Your task to perform on an android device: turn on priority inbox in the gmail app Image 0: 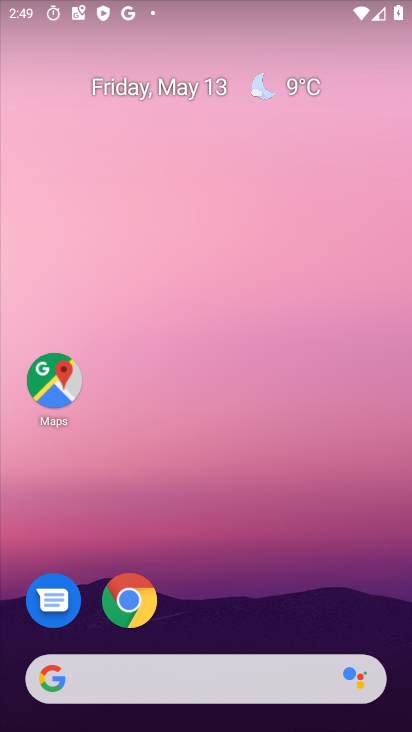
Step 0: drag from (216, 583) to (364, 39)
Your task to perform on an android device: turn on priority inbox in the gmail app Image 1: 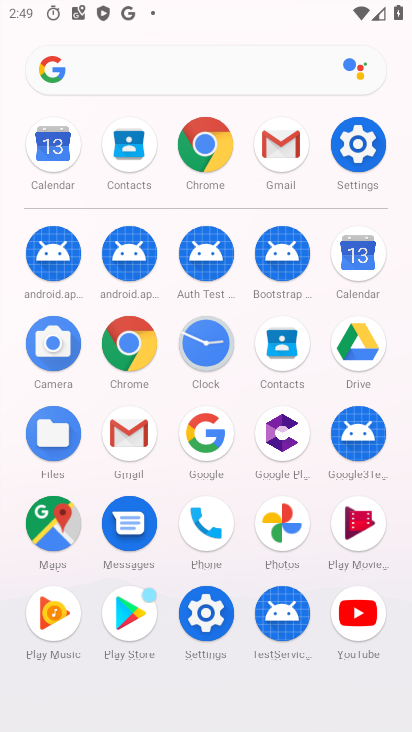
Step 1: click (127, 429)
Your task to perform on an android device: turn on priority inbox in the gmail app Image 2: 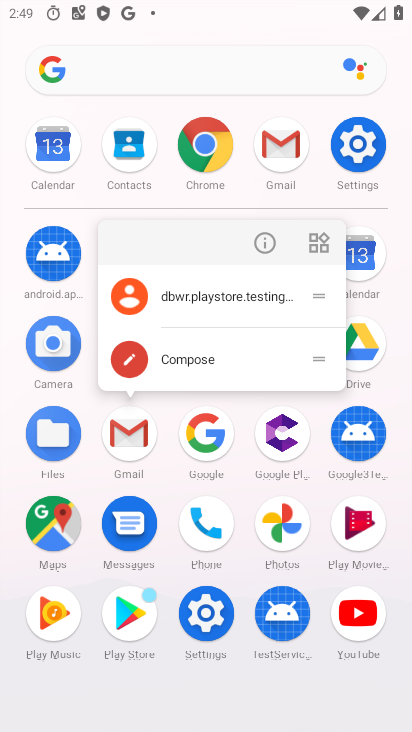
Step 2: click (262, 232)
Your task to perform on an android device: turn on priority inbox in the gmail app Image 3: 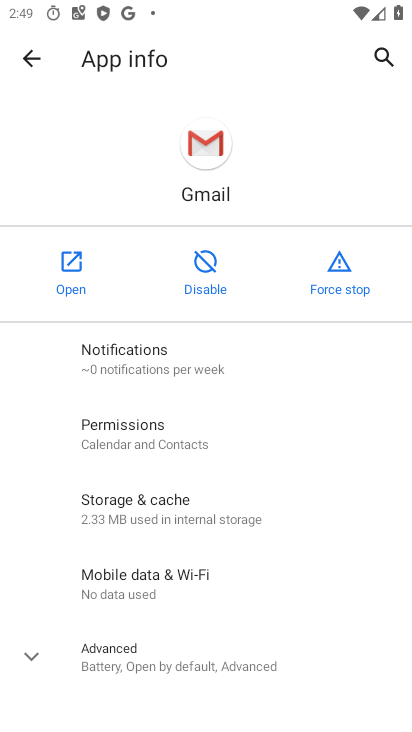
Step 3: click (68, 272)
Your task to perform on an android device: turn on priority inbox in the gmail app Image 4: 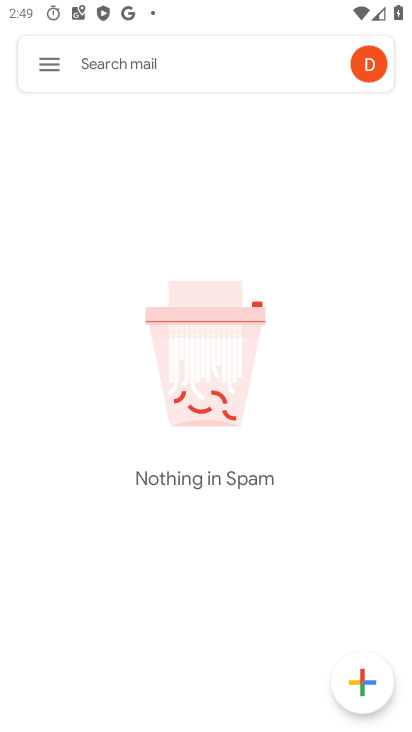
Step 4: click (50, 67)
Your task to perform on an android device: turn on priority inbox in the gmail app Image 5: 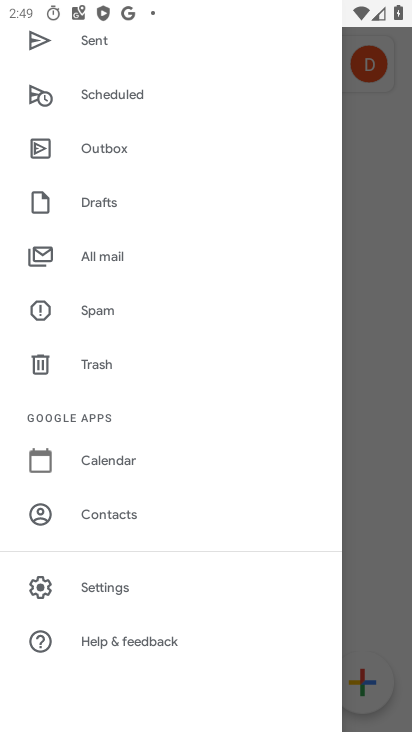
Step 5: click (116, 587)
Your task to perform on an android device: turn on priority inbox in the gmail app Image 6: 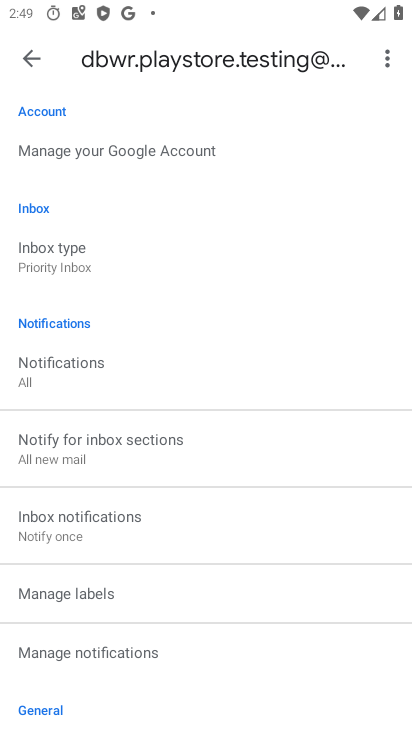
Step 6: click (106, 252)
Your task to perform on an android device: turn on priority inbox in the gmail app Image 7: 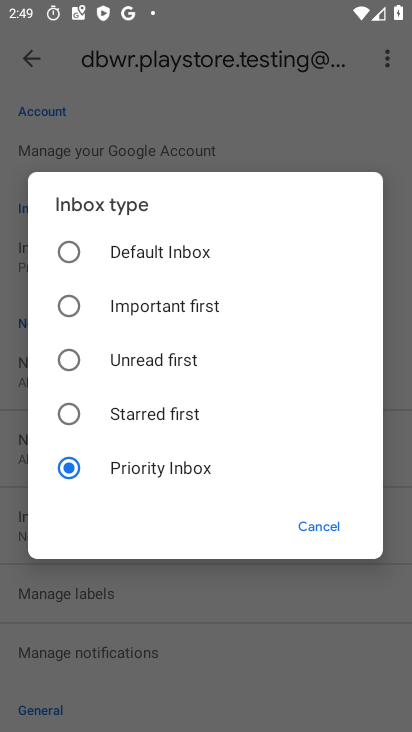
Step 7: click (136, 502)
Your task to perform on an android device: turn on priority inbox in the gmail app Image 8: 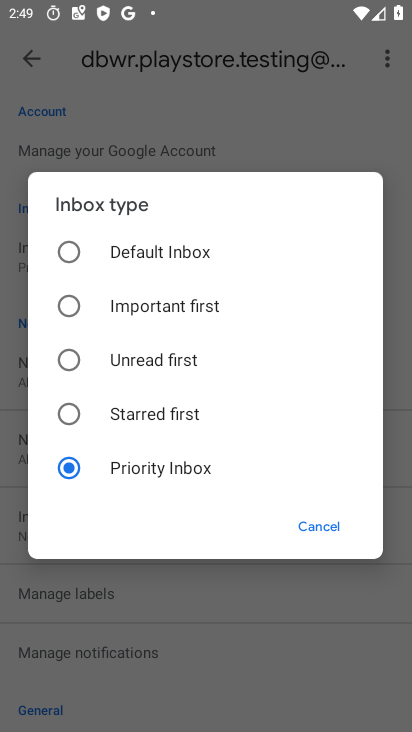
Step 8: click (135, 486)
Your task to perform on an android device: turn on priority inbox in the gmail app Image 9: 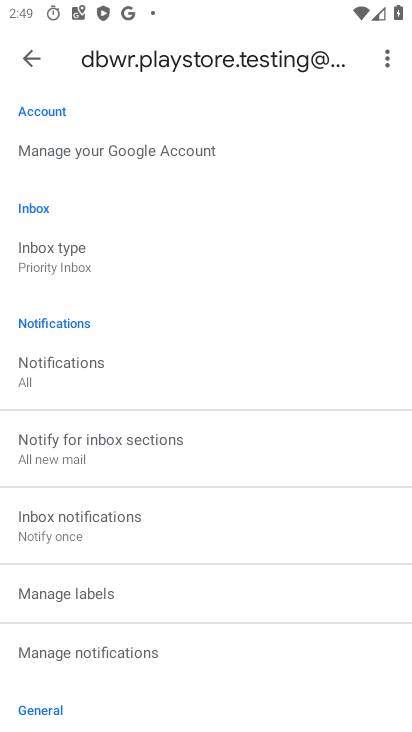
Step 9: task complete